Your task to perform on an android device: toggle airplane mode Image 0: 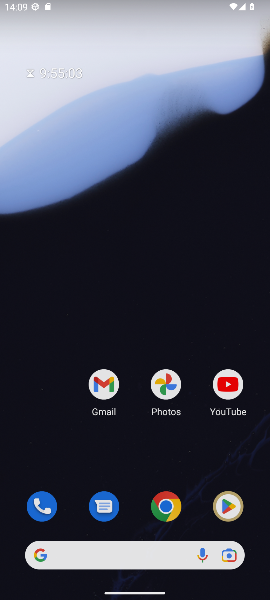
Step 0: press home button
Your task to perform on an android device: toggle airplane mode Image 1: 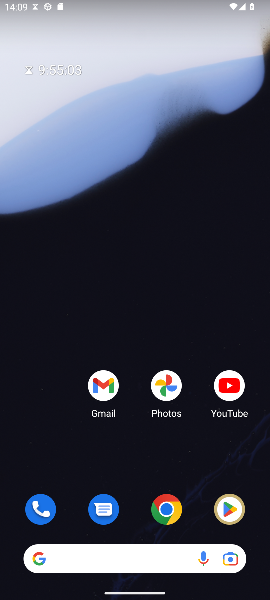
Step 1: drag from (133, 485) to (136, 124)
Your task to perform on an android device: toggle airplane mode Image 2: 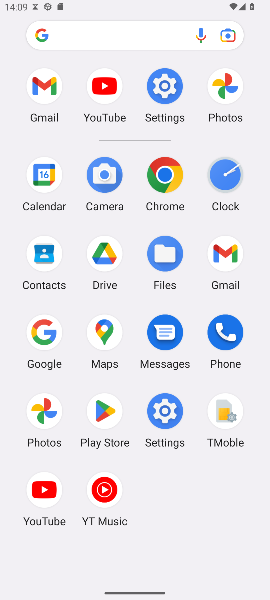
Step 2: click (163, 89)
Your task to perform on an android device: toggle airplane mode Image 3: 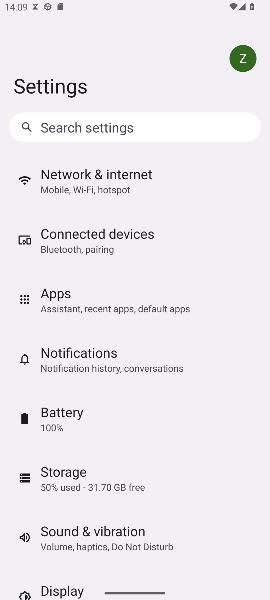
Step 3: click (82, 184)
Your task to perform on an android device: toggle airplane mode Image 4: 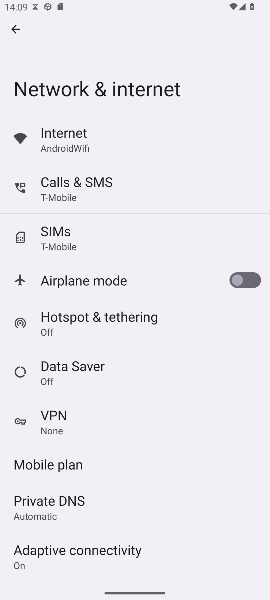
Step 4: click (234, 282)
Your task to perform on an android device: toggle airplane mode Image 5: 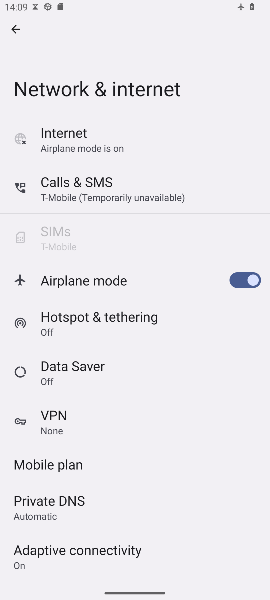
Step 5: task complete